Your task to perform on an android device: turn on wifi Image 0: 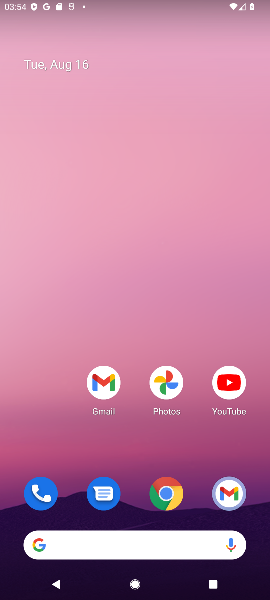
Step 0: press home button
Your task to perform on an android device: turn on wifi Image 1: 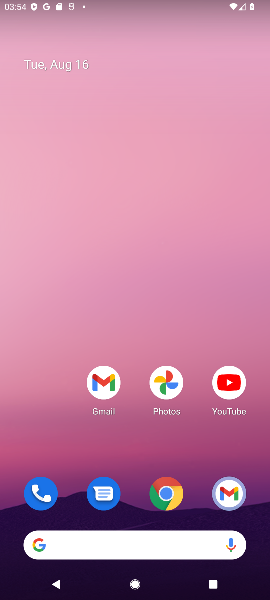
Step 1: drag from (63, 468) to (61, 111)
Your task to perform on an android device: turn on wifi Image 2: 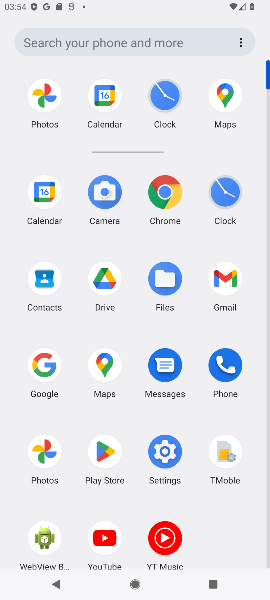
Step 2: click (161, 453)
Your task to perform on an android device: turn on wifi Image 3: 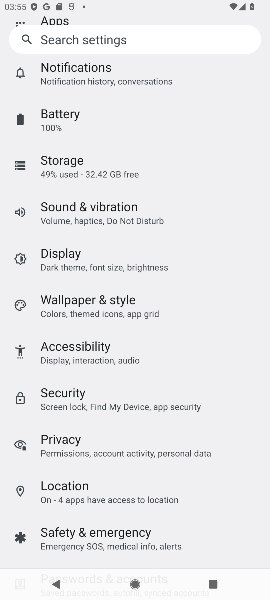
Step 3: drag from (234, 234) to (238, 333)
Your task to perform on an android device: turn on wifi Image 4: 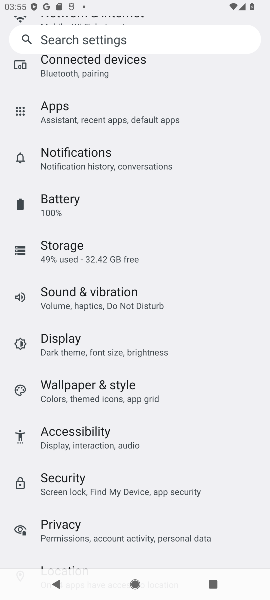
Step 4: drag from (238, 195) to (235, 307)
Your task to perform on an android device: turn on wifi Image 5: 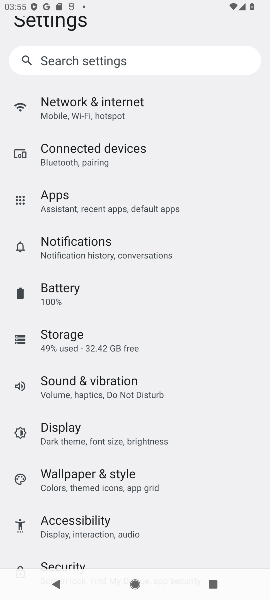
Step 5: drag from (235, 146) to (232, 287)
Your task to perform on an android device: turn on wifi Image 6: 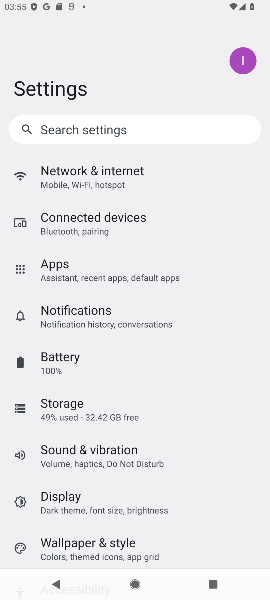
Step 6: click (136, 175)
Your task to perform on an android device: turn on wifi Image 7: 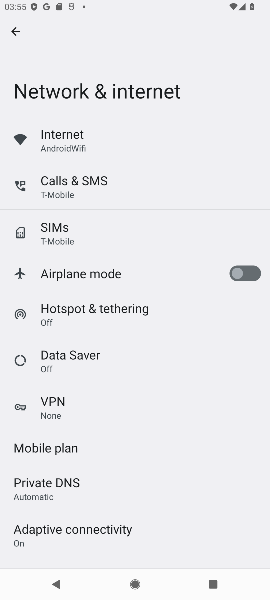
Step 7: drag from (197, 382) to (207, 295)
Your task to perform on an android device: turn on wifi Image 8: 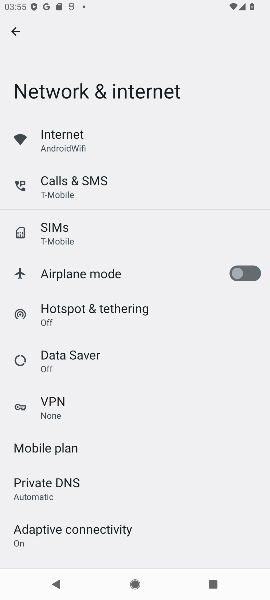
Step 8: click (87, 132)
Your task to perform on an android device: turn on wifi Image 9: 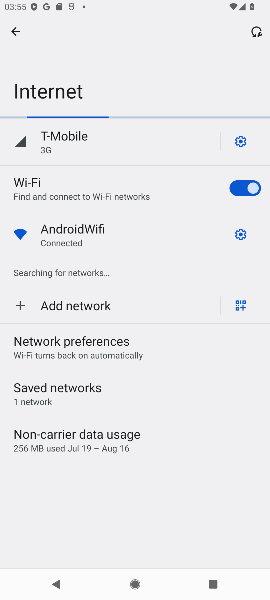
Step 9: task complete